Your task to perform on an android device: turn off picture-in-picture Image 0: 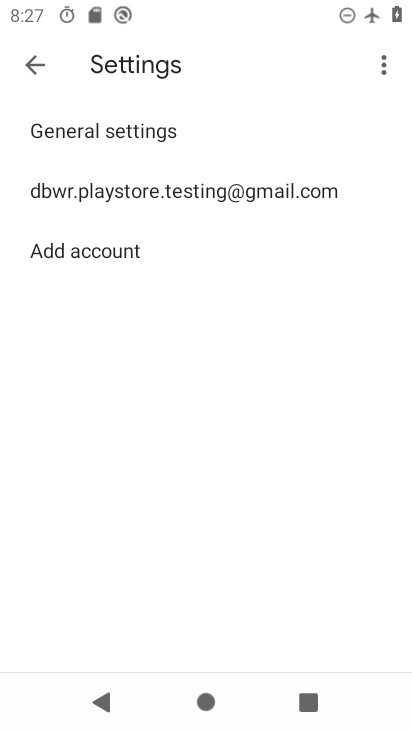
Step 0: press home button
Your task to perform on an android device: turn off picture-in-picture Image 1: 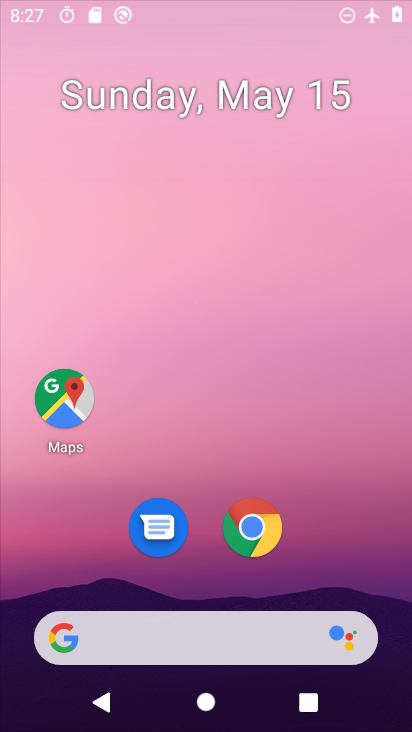
Step 1: click (246, 532)
Your task to perform on an android device: turn off picture-in-picture Image 2: 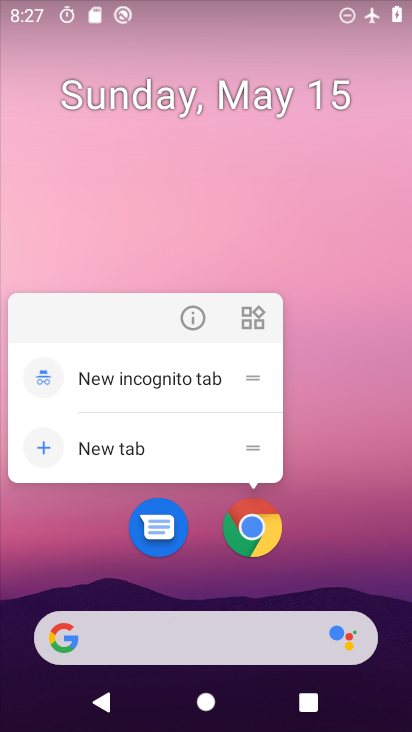
Step 2: click (195, 326)
Your task to perform on an android device: turn off picture-in-picture Image 3: 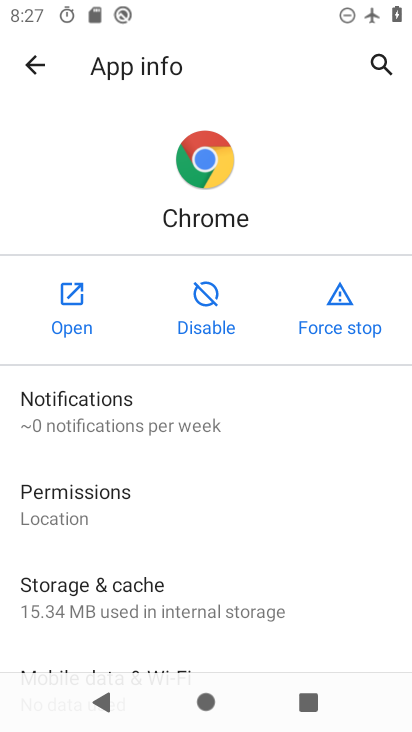
Step 3: drag from (235, 633) to (197, 202)
Your task to perform on an android device: turn off picture-in-picture Image 4: 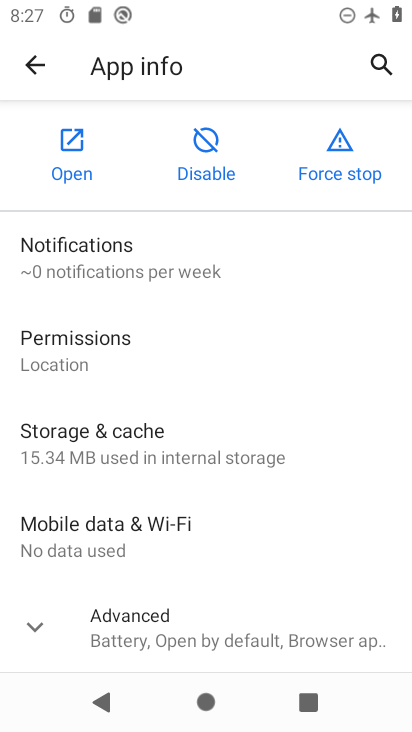
Step 4: click (174, 613)
Your task to perform on an android device: turn off picture-in-picture Image 5: 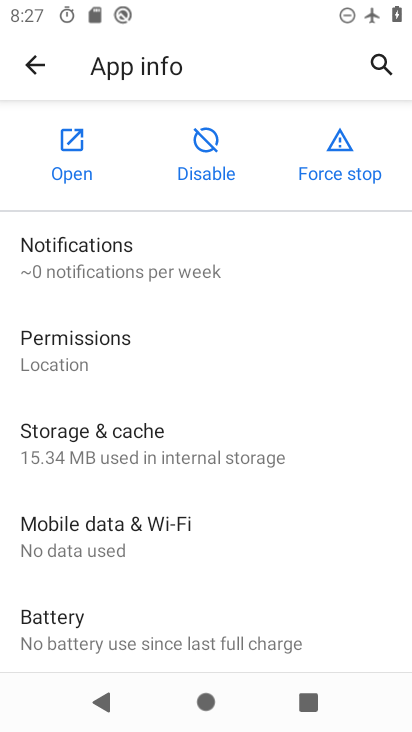
Step 5: drag from (210, 600) to (252, 218)
Your task to perform on an android device: turn off picture-in-picture Image 6: 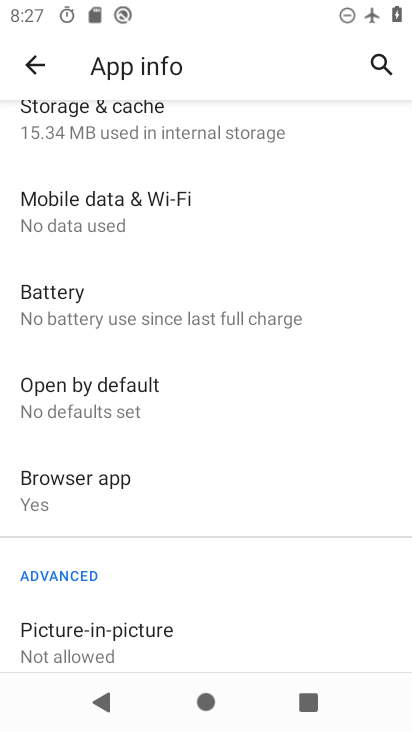
Step 6: drag from (127, 639) to (215, 343)
Your task to perform on an android device: turn off picture-in-picture Image 7: 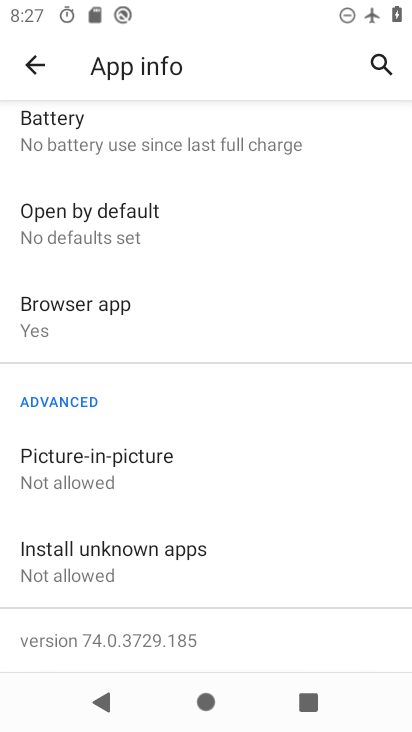
Step 7: click (163, 471)
Your task to perform on an android device: turn off picture-in-picture Image 8: 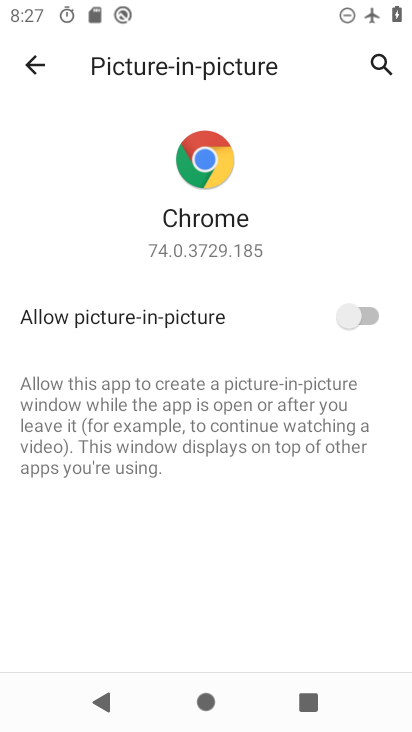
Step 8: task complete